Your task to perform on an android device: Clear the cart on bestbuy.com. Search for "lg ultragear" on bestbuy.com, select the first entry, and add it to the cart. Image 0: 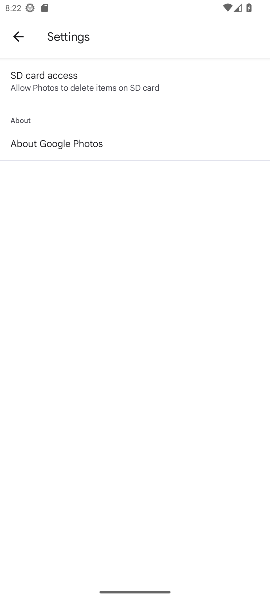
Step 0: press home button
Your task to perform on an android device: Clear the cart on bestbuy.com. Search for "lg ultragear" on bestbuy.com, select the first entry, and add it to the cart. Image 1: 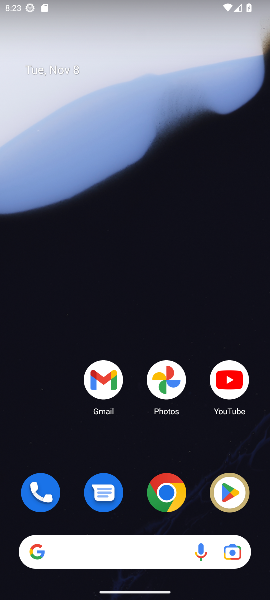
Step 1: click (161, 504)
Your task to perform on an android device: Clear the cart on bestbuy.com. Search for "lg ultragear" on bestbuy.com, select the first entry, and add it to the cart. Image 2: 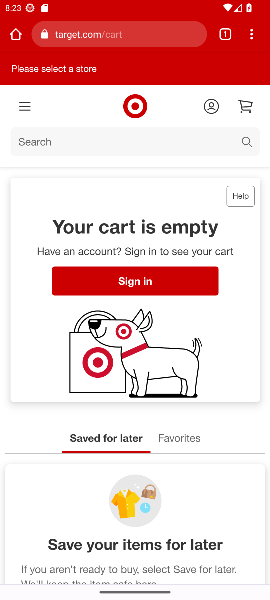
Step 2: click (67, 29)
Your task to perform on an android device: Clear the cart on bestbuy.com. Search for "lg ultragear" on bestbuy.com, select the first entry, and add it to the cart. Image 3: 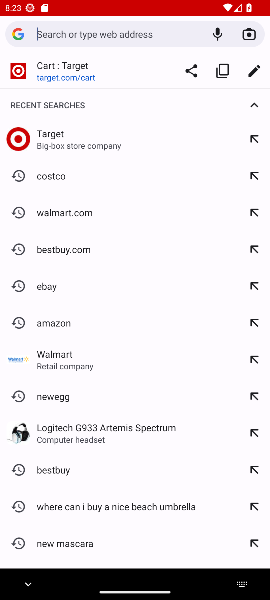
Step 3: click (66, 256)
Your task to perform on an android device: Clear the cart on bestbuy.com. Search for "lg ultragear" on bestbuy.com, select the first entry, and add it to the cart. Image 4: 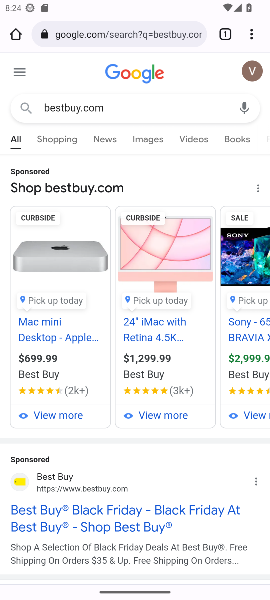
Step 4: click (55, 507)
Your task to perform on an android device: Clear the cart on bestbuy.com. Search for "lg ultragear" on bestbuy.com, select the first entry, and add it to the cart. Image 5: 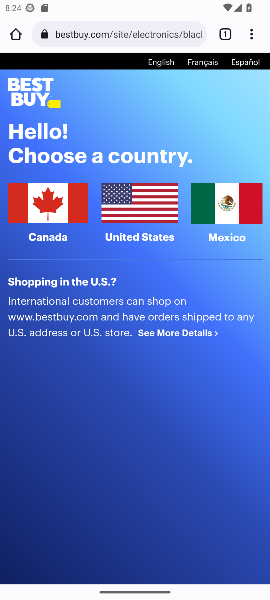
Step 5: click (142, 191)
Your task to perform on an android device: Clear the cart on bestbuy.com. Search for "lg ultragear" on bestbuy.com, select the first entry, and add it to the cart. Image 6: 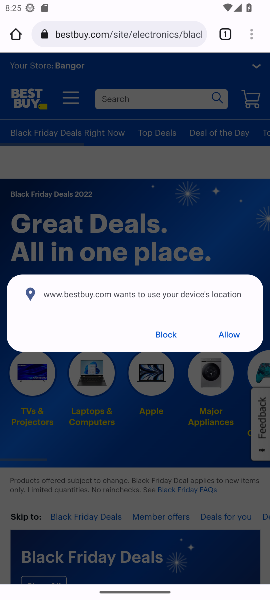
Step 6: click (242, 337)
Your task to perform on an android device: Clear the cart on bestbuy.com. Search for "lg ultragear" on bestbuy.com, select the first entry, and add it to the cart. Image 7: 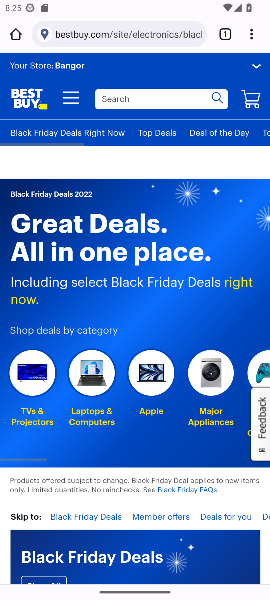
Step 7: click (244, 105)
Your task to perform on an android device: Clear the cart on bestbuy.com. Search for "lg ultragear" on bestbuy.com, select the first entry, and add it to the cart. Image 8: 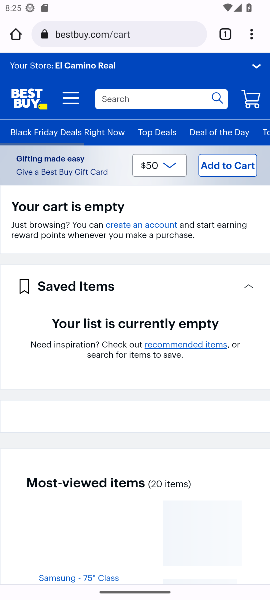
Step 8: click (136, 103)
Your task to perform on an android device: Clear the cart on bestbuy.com. Search for "lg ultragear" on bestbuy.com, select the first entry, and add it to the cart. Image 9: 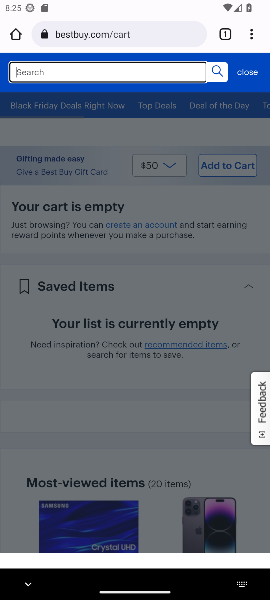
Step 9: type "lg ultragear"
Your task to perform on an android device: Clear the cart on bestbuy.com. Search for "lg ultragear" on bestbuy.com, select the first entry, and add it to the cart. Image 10: 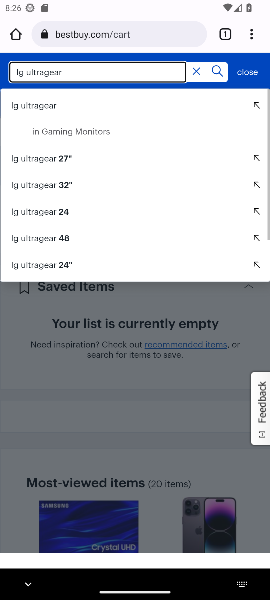
Step 10: click (216, 72)
Your task to perform on an android device: Clear the cart on bestbuy.com. Search for "lg ultragear" on bestbuy.com, select the first entry, and add it to the cart. Image 11: 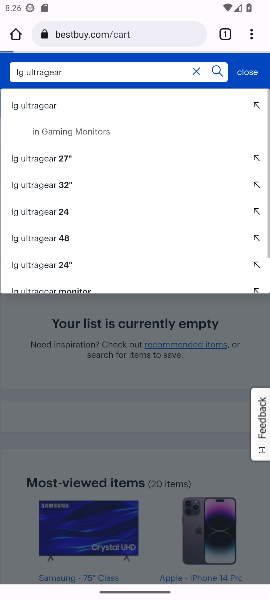
Step 11: click (212, 70)
Your task to perform on an android device: Clear the cart on bestbuy.com. Search for "lg ultragear" on bestbuy.com, select the first entry, and add it to the cart. Image 12: 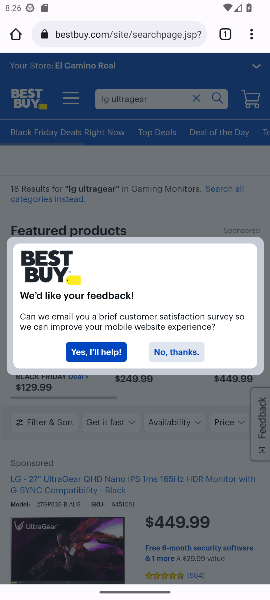
Step 12: click (180, 352)
Your task to perform on an android device: Clear the cart on bestbuy.com. Search for "lg ultragear" on bestbuy.com, select the first entry, and add it to the cart. Image 13: 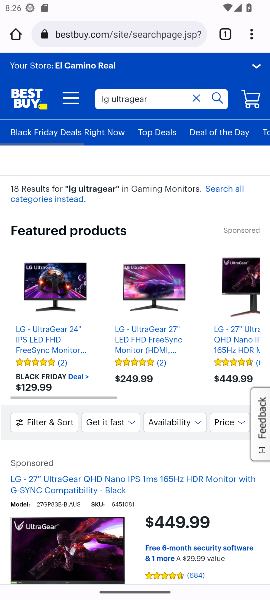
Step 13: drag from (102, 458) to (105, 276)
Your task to perform on an android device: Clear the cart on bestbuy.com. Search for "lg ultragear" on bestbuy.com, select the first entry, and add it to the cart. Image 14: 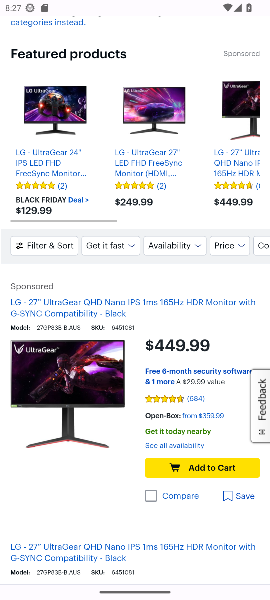
Step 14: click (202, 466)
Your task to perform on an android device: Clear the cart on bestbuy.com. Search for "lg ultragear" on bestbuy.com, select the first entry, and add it to the cart. Image 15: 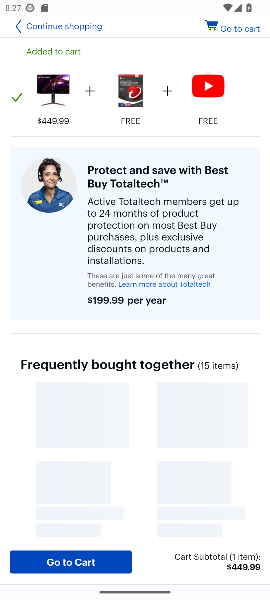
Step 15: task complete